Your task to perform on an android device: Open settings Image 0: 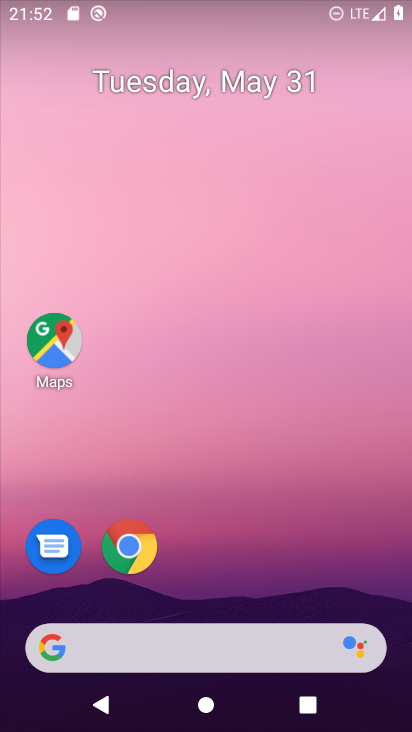
Step 0: drag from (399, 585) to (359, 160)
Your task to perform on an android device: Open settings Image 1: 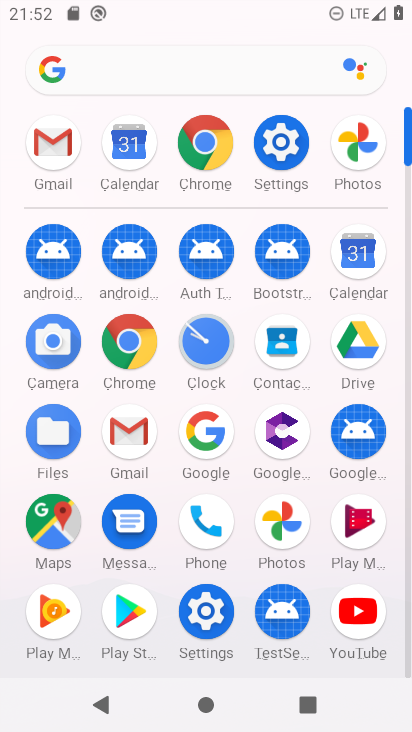
Step 1: click (295, 133)
Your task to perform on an android device: Open settings Image 2: 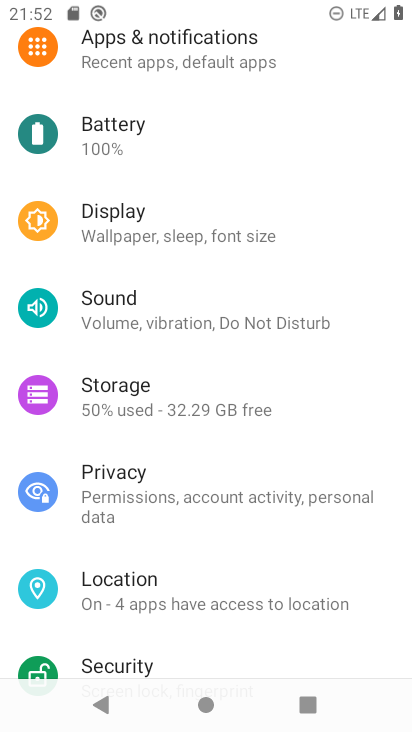
Step 2: task complete